Your task to perform on an android device: change timer sound Image 0: 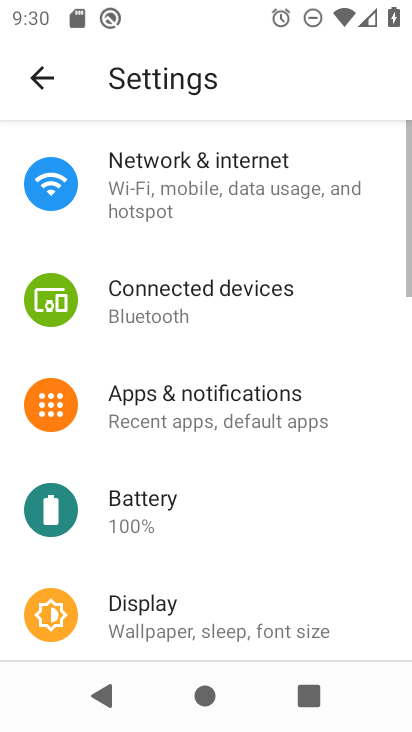
Step 0: press home button
Your task to perform on an android device: change timer sound Image 1: 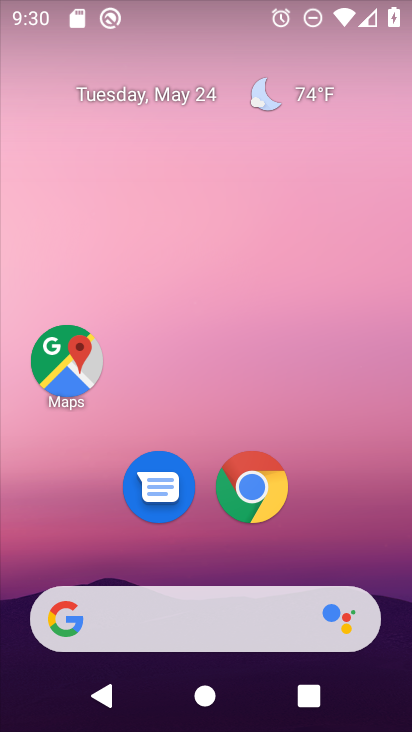
Step 1: drag from (350, 527) to (327, 2)
Your task to perform on an android device: change timer sound Image 2: 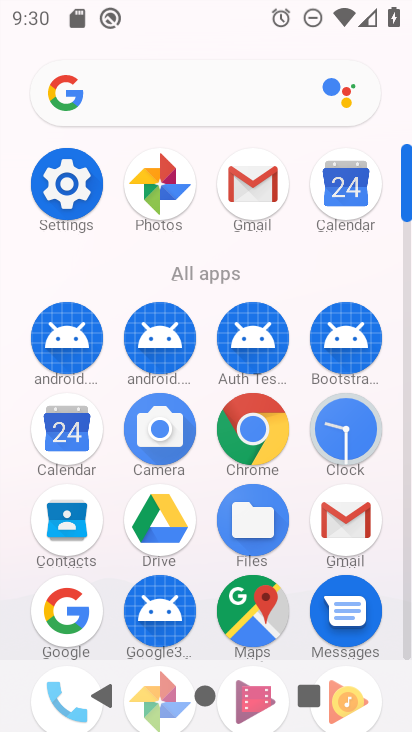
Step 2: click (342, 441)
Your task to perform on an android device: change timer sound Image 3: 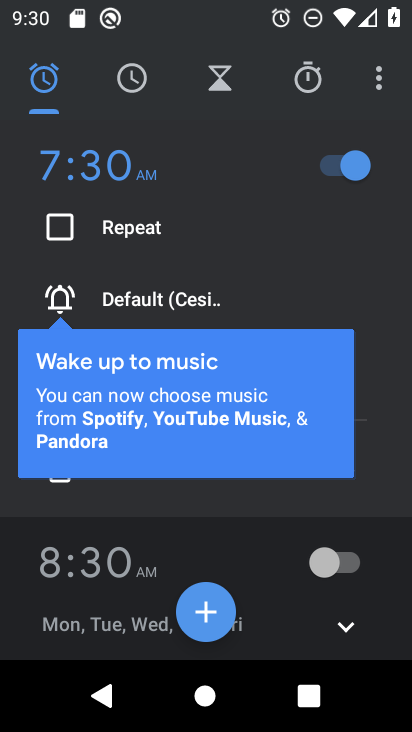
Step 3: click (384, 86)
Your task to perform on an android device: change timer sound Image 4: 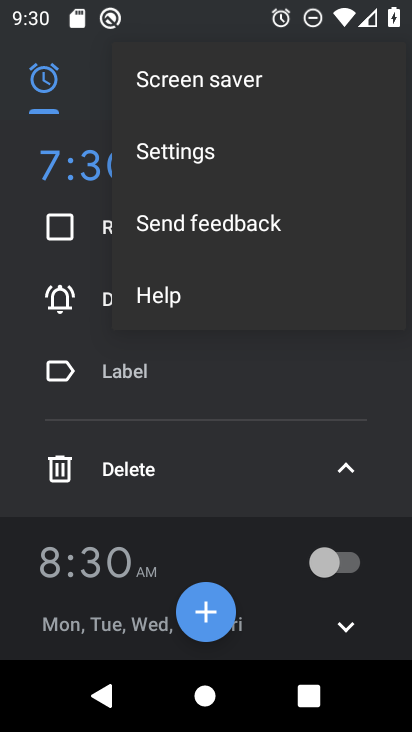
Step 4: click (171, 163)
Your task to perform on an android device: change timer sound Image 5: 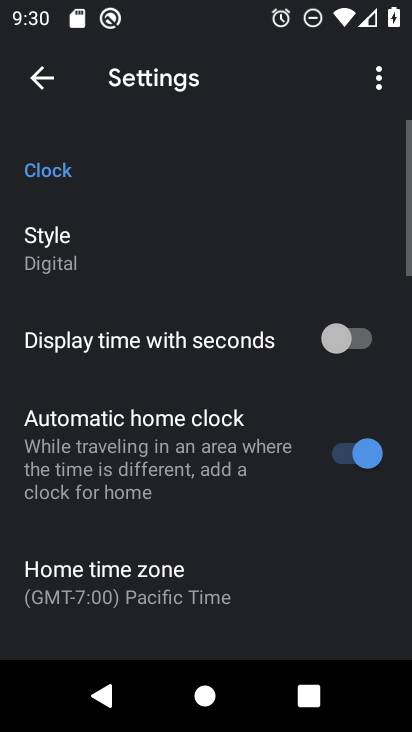
Step 5: drag from (190, 517) to (151, 113)
Your task to perform on an android device: change timer sound Image 6: 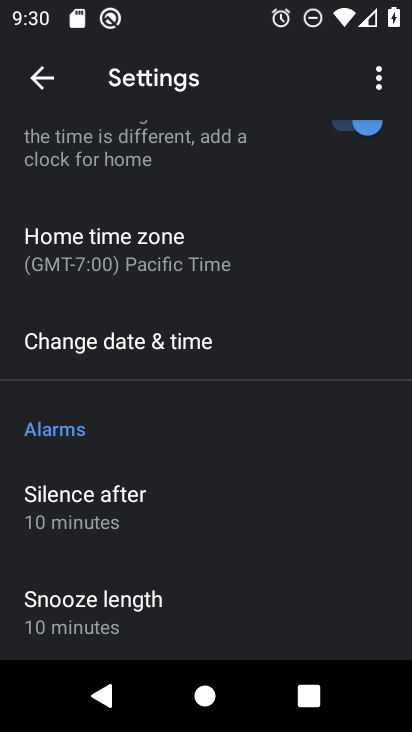
Step 6: drag from (163, 475) to (160, 98)
Your task to perform on an android device: change timer sound Image 7: 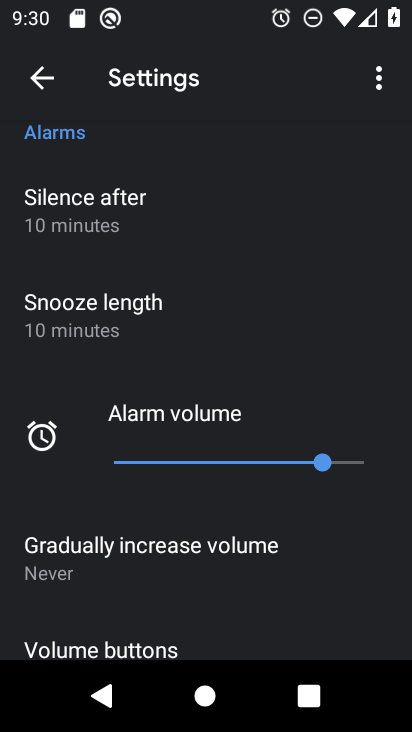
Step 7: drag from (174, 465) to (134, 123)
Your task to perform on an android device: change timer sound Image 8: 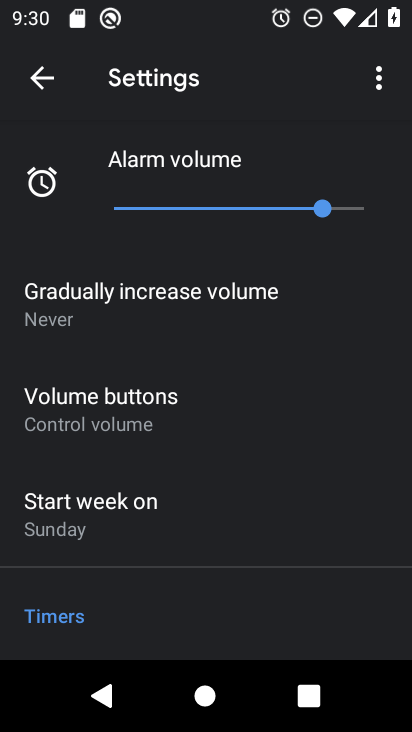
Step 8: drag from (153, 504) to (135, 171)
Your task to perform on an android device: change timer sound Image 9: 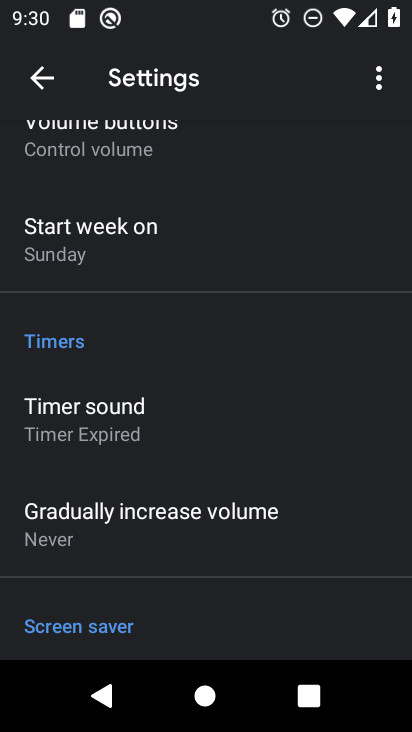
Step 9: click (61, 416)
Your task to perform on an android device: change timer sound Image 10: 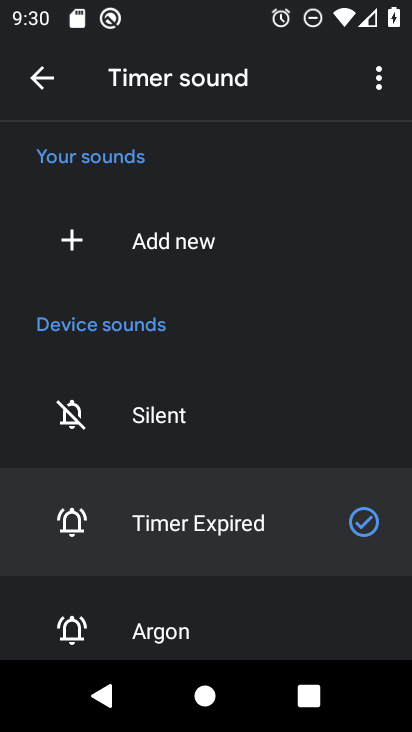
Step 10: drag from (213, 580) to (164, 258)
Your task to perform on an android device: change timer sound Image 11: 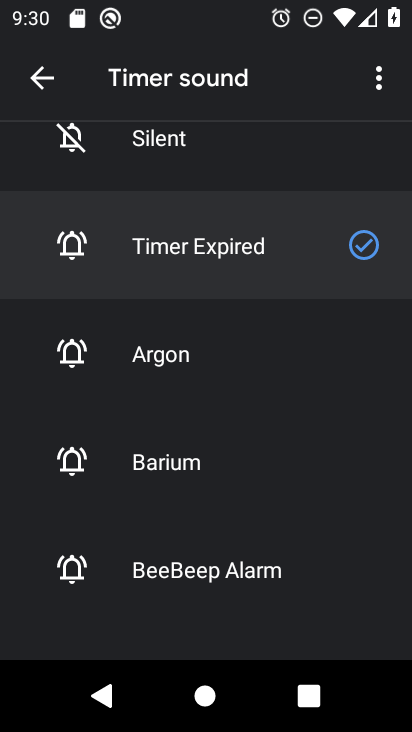
Step 11: click (131, 459)
Your task to perform on an android device: change timer sound Image 12: 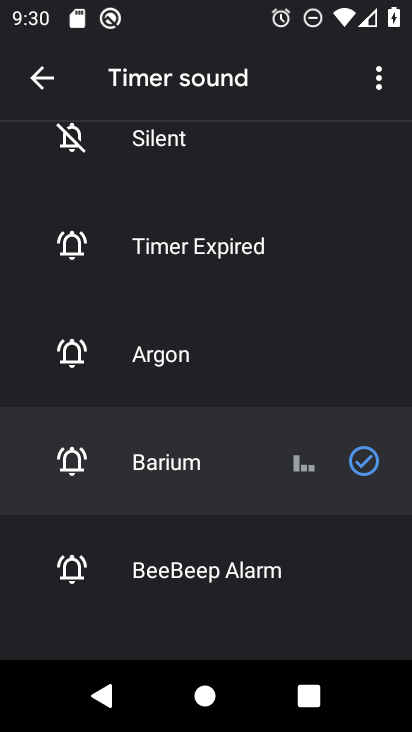
Step 12: task complete